Your task to perform on an android device: open device folders in google photos Image 0: 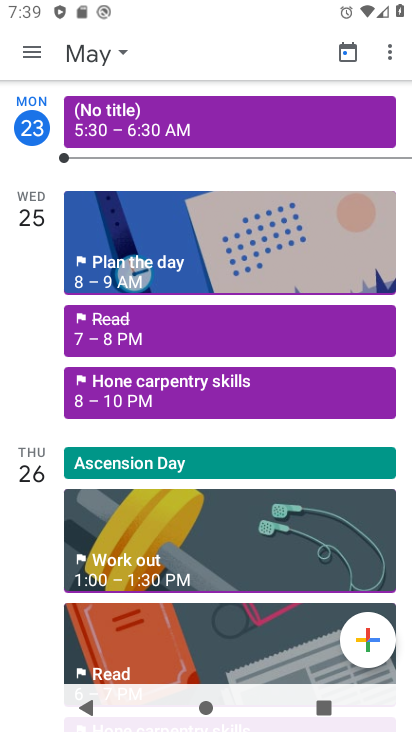
Step 0: press home button
Your task to perform on an android device: open device folders in google photos Image 1: 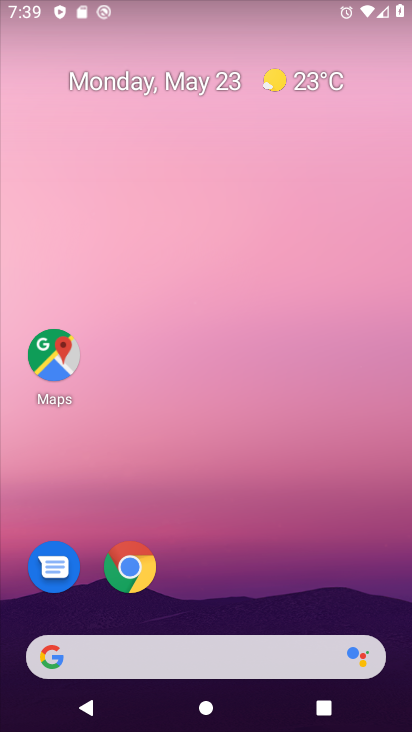
Step 1: drag from (235, 610) to (226, 251)
Your task to perform on an android device: open device folders in google photos Image 2: 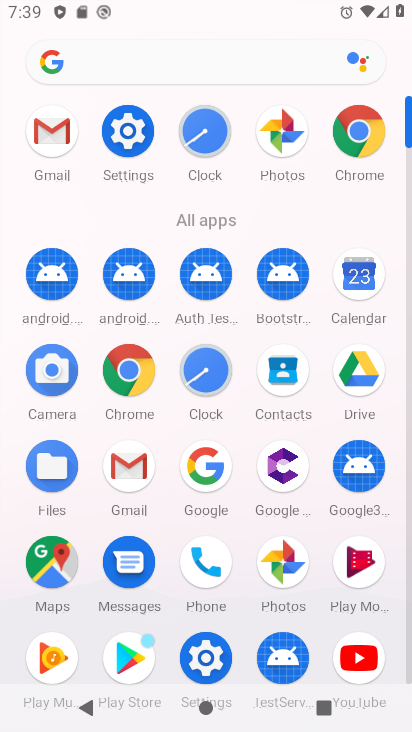
Step 2: click (287, 557)
Your task to perform on an android device: open device folders in google photos Image 3: 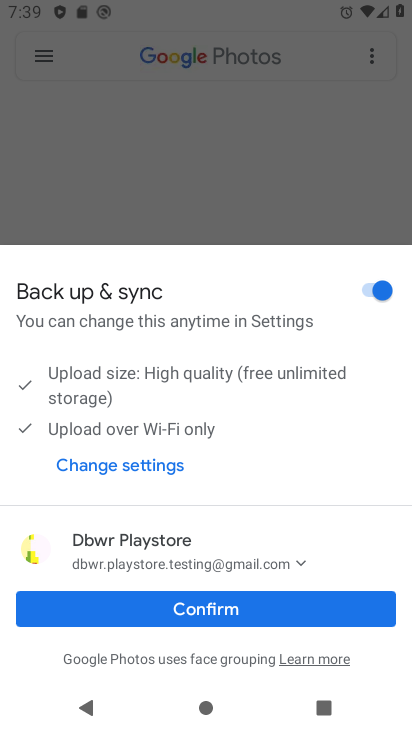
Step 3: click (177, 602)
Your task to perform on an android device: open device folders in google photos Image 4: 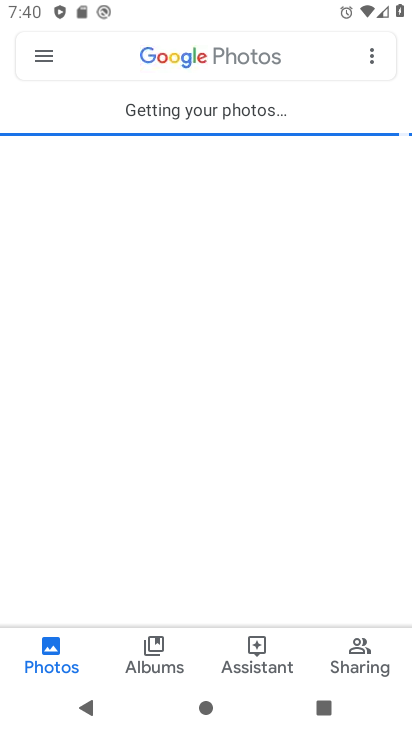
Step 4: click (154, 653)
Your task to perform on an android device: open device folders in google photos Image 5: 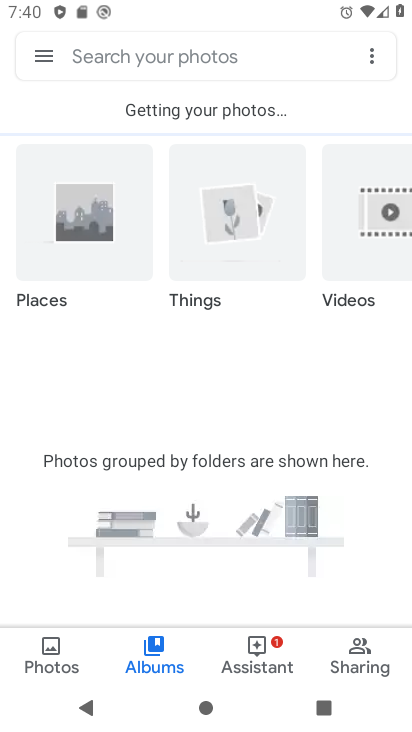
Step 5: click (41, 645)
Your task to perform on an android device: open device folders in google photos Image 6: 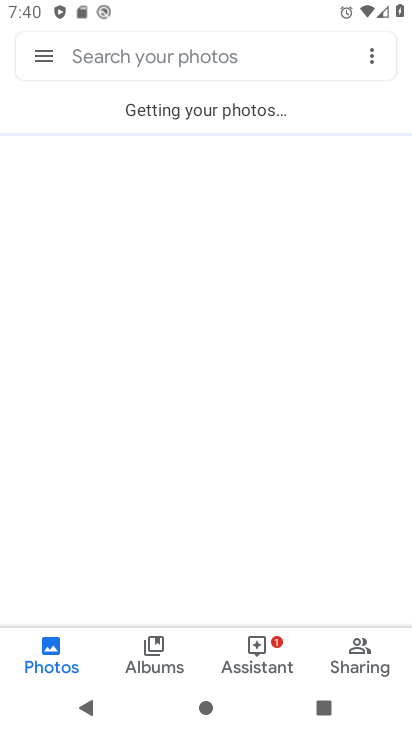
Step 6: click (160, 643)
Your task to perform on an android device: open device folders in google photos Image 7: 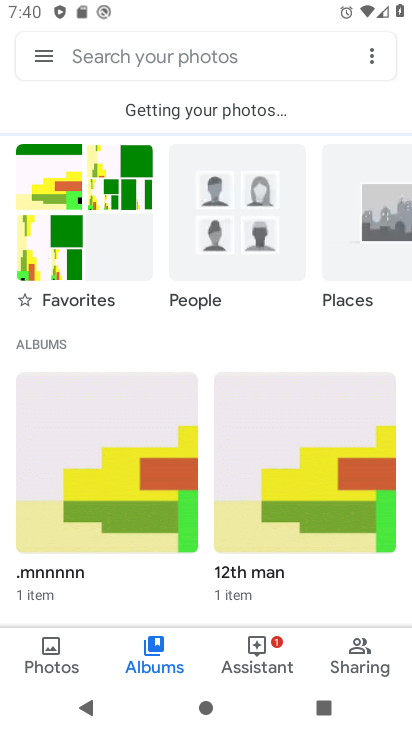
Step 7: click (45, 170)
Your task to perform on an android device: open device folders in google photos Image 8: 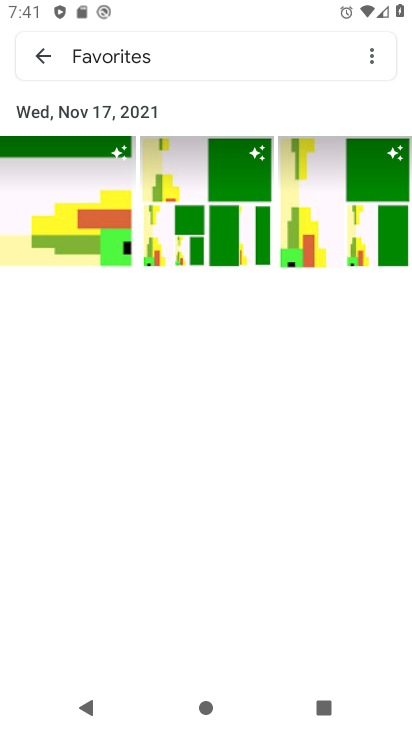
Step 8: task complete